Your task to perform on an android device: open a new tab in the chrome app Image 0: 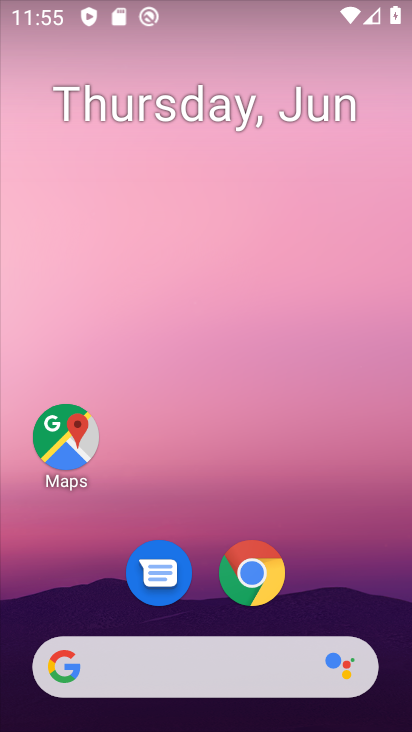
Step 0: task complete